Your task to perform on an android device: Add usb-b to the cart on bestbuy, then select checkout. Image 0: 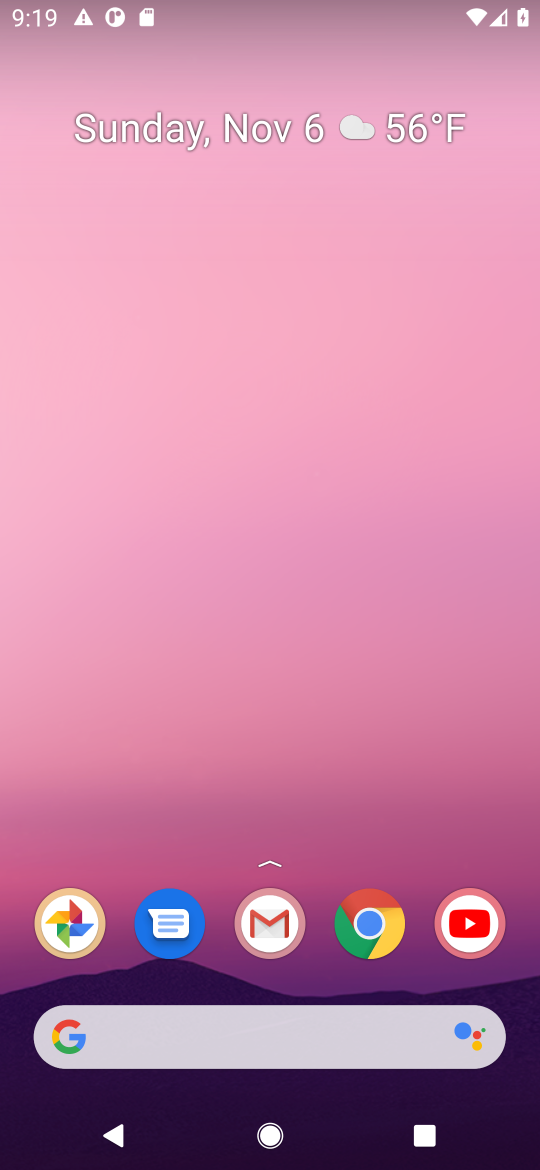
Step 0: click (371, 934)
Your task to perform on an android device: Add usb-b to the cart on bestbuy, then select checkout. Image 1: 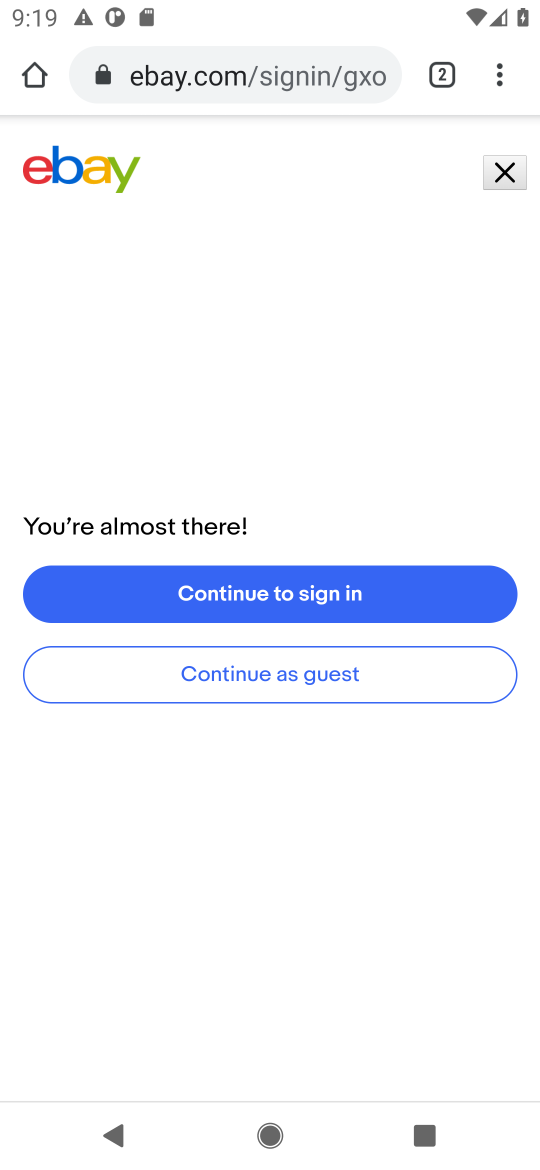
Step 1: click (212, 83)
Your task to perform on an android device: Add usb-b to the cart on bestbuy, then select checkout. Image 2: 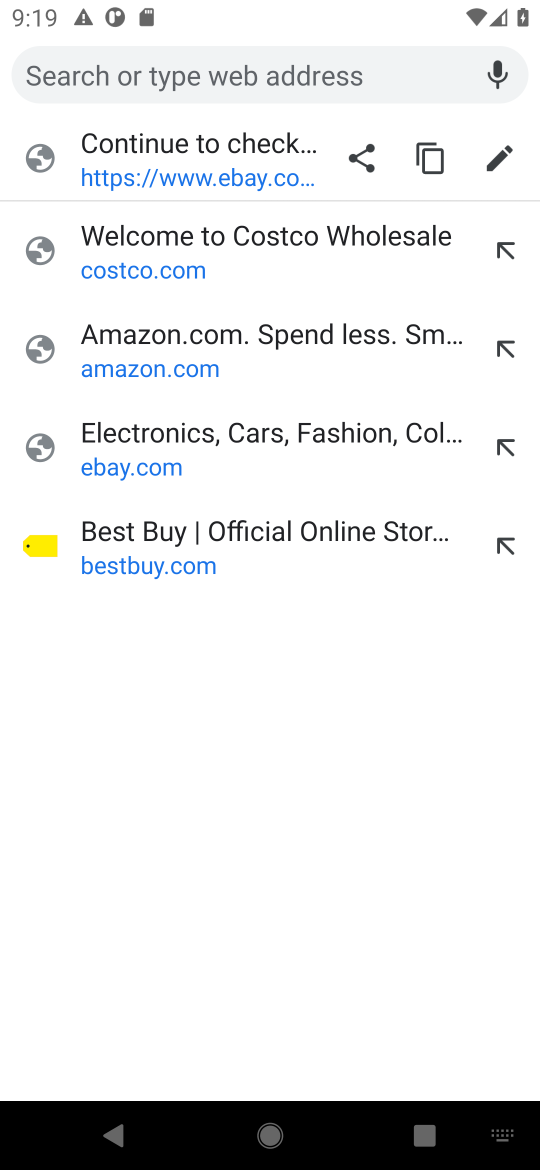
Step 2: click (164, 570)
Your task to perform on an android device: Add usb-b to the cart on bestbuy, then select checkout. Image 3: 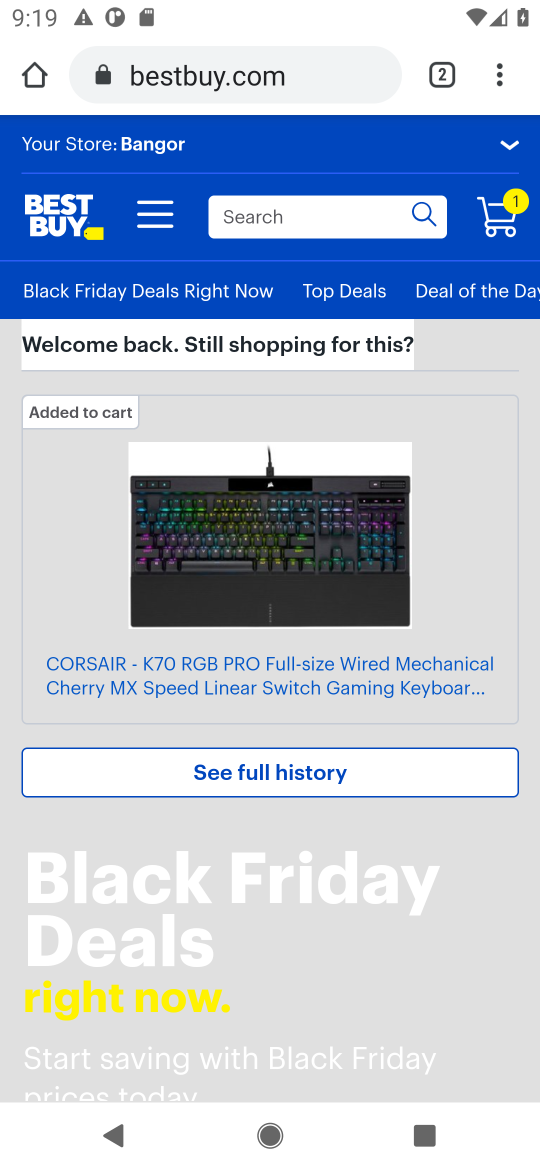
Step 3: click (258, 226)
Your task to perform on an android device: Add usb-b to the cart on bestbuy, then select checkout. Image 4: 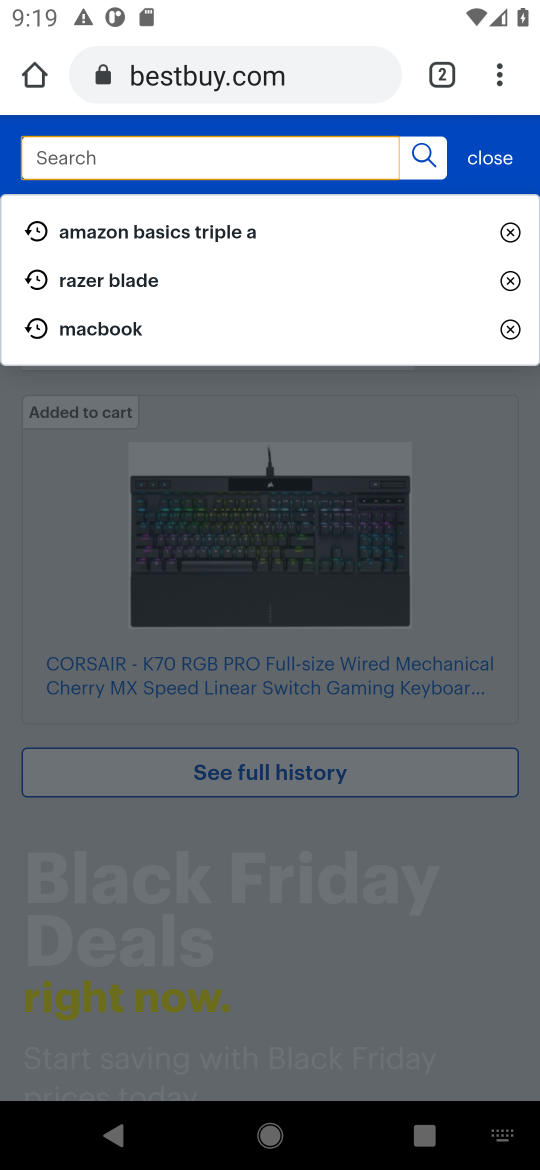
Step 4: type " usb-b "
Your task to perform on an android device: Add usb-b to the cart on bestbuy, then select checkout. Image 5: 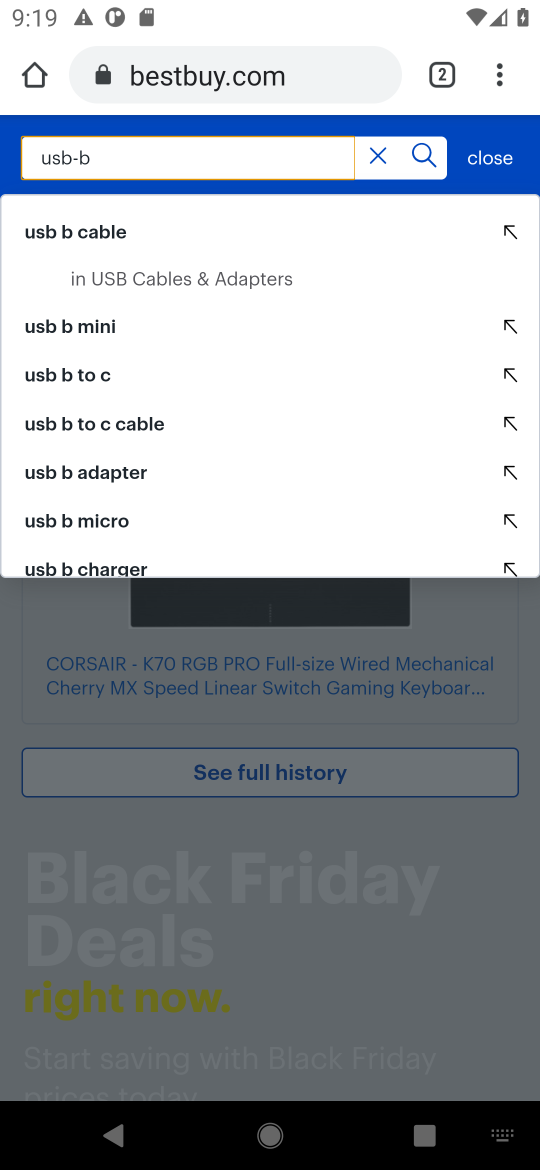
Step 5: click (423, 152)
Your task to perform on an android device: Add usb-b to the cart on bestbuy, then select checkout. Image 6: 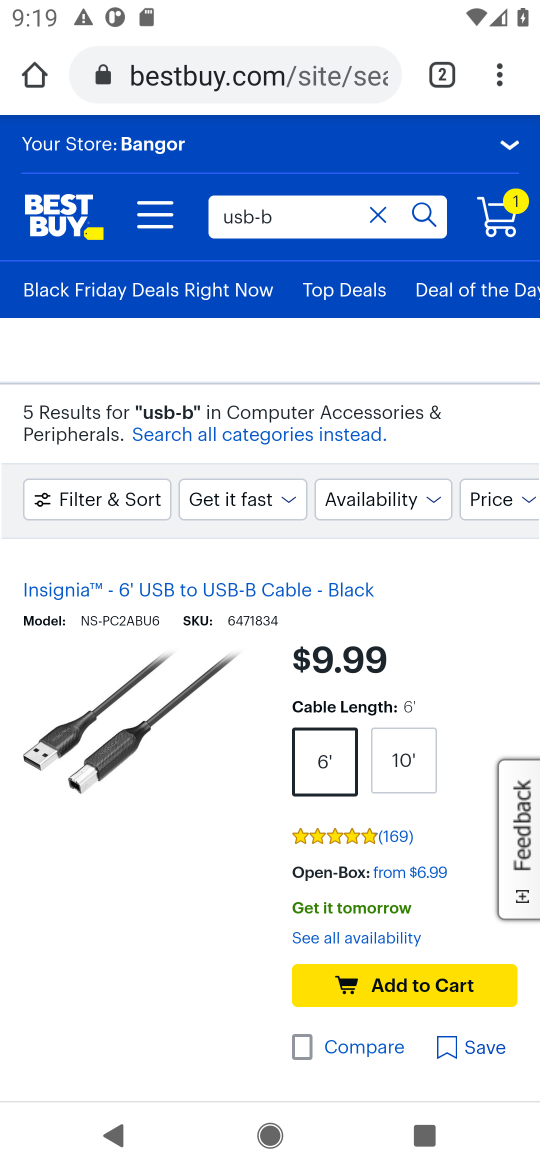
Step 6: click (404, 987)
Your task to perform on an android device: Add usb-b to the cart on bestbuy, then select checkout. Image 7: 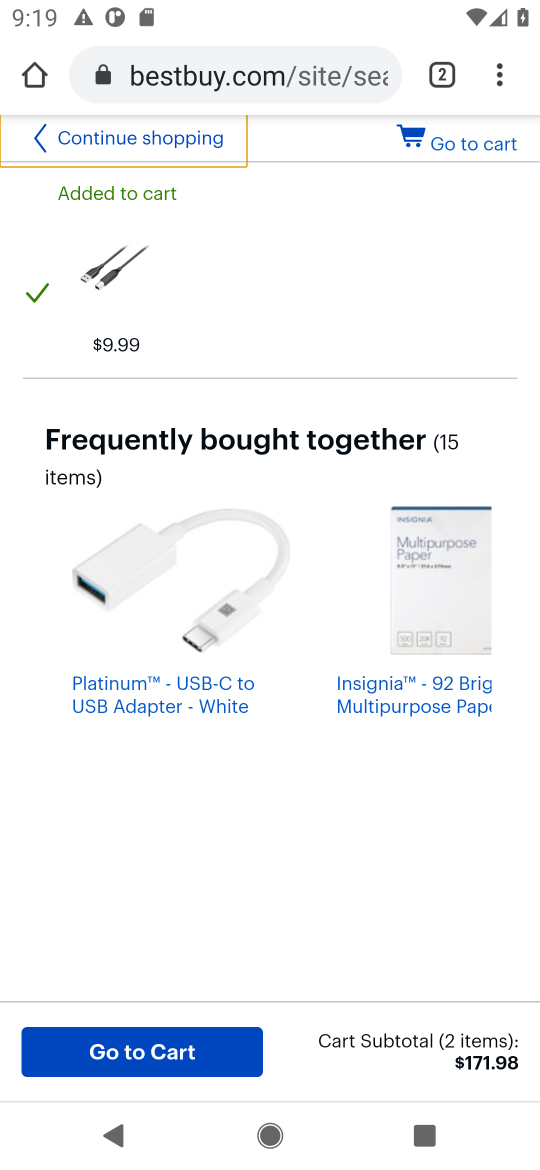
Step 7: click (451, 150)
Your task to perform on an android device: Add usb-b to the cart on bestbuy, then select checkout. Image 8: 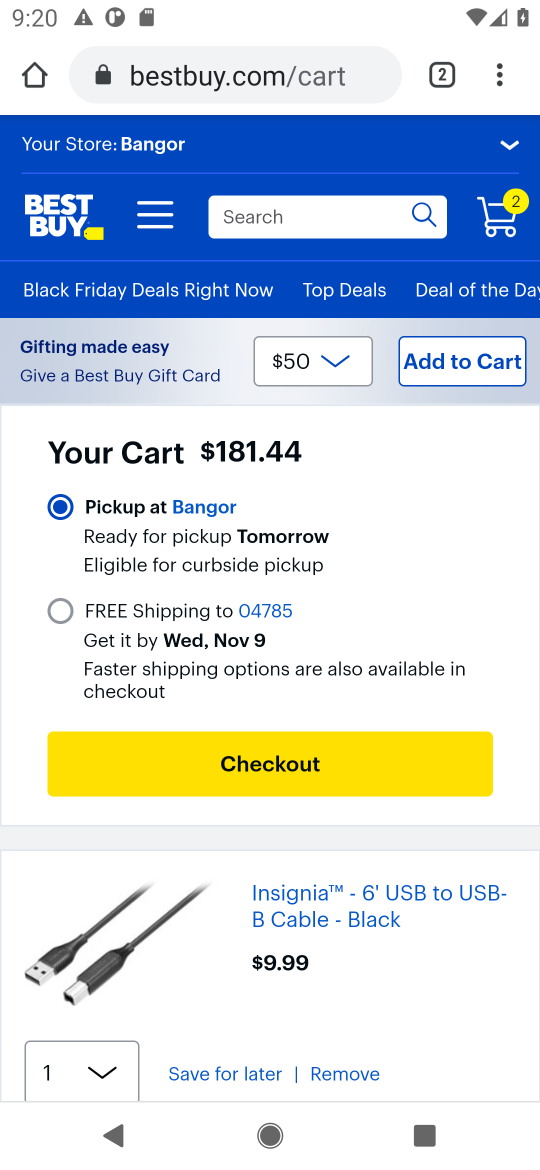
Step 8: click (251, 764)
Your task to perform on an android device: Add usb-b to the cart on bestbuy, then select checkout. Image 9: 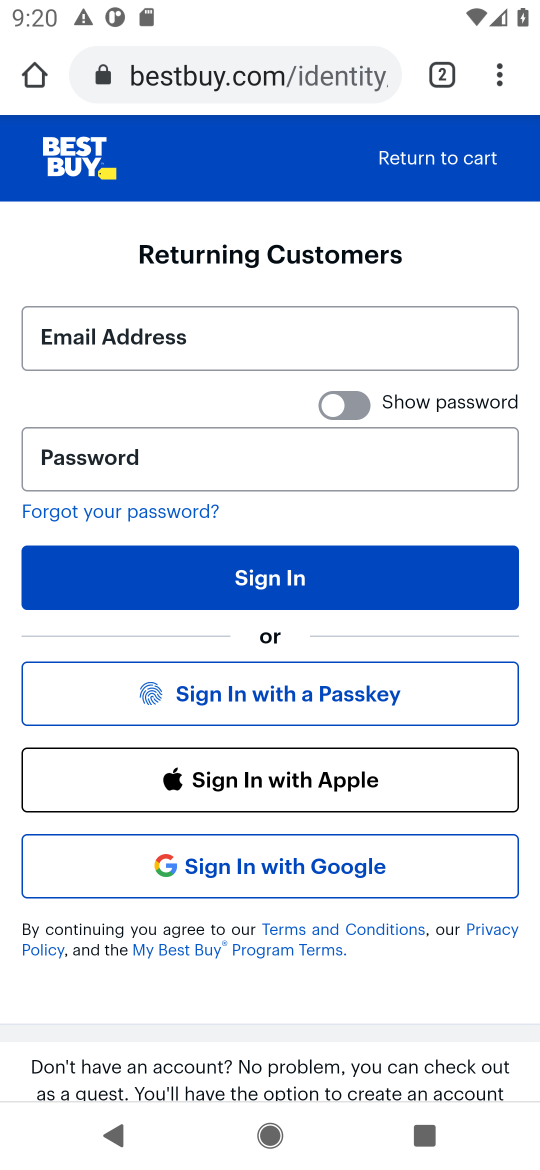
Step 9: task complete